Your task to perform on an android device: toggle airplane mode Image 0: 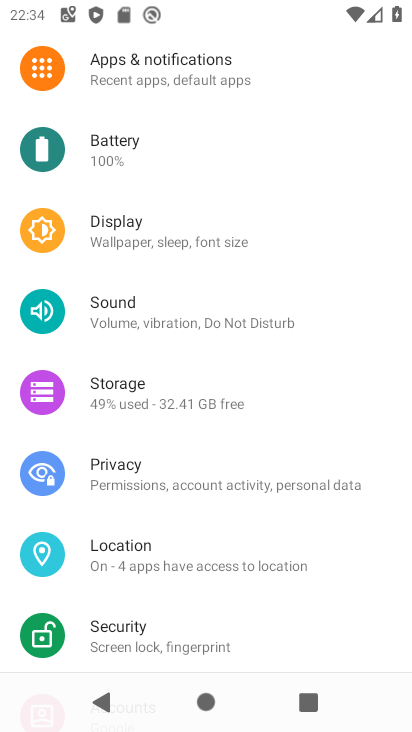
Step 0: drag from (239, 126) to (314, 540)
Your task to perform on an android device: toggle airplane mode Image 1: 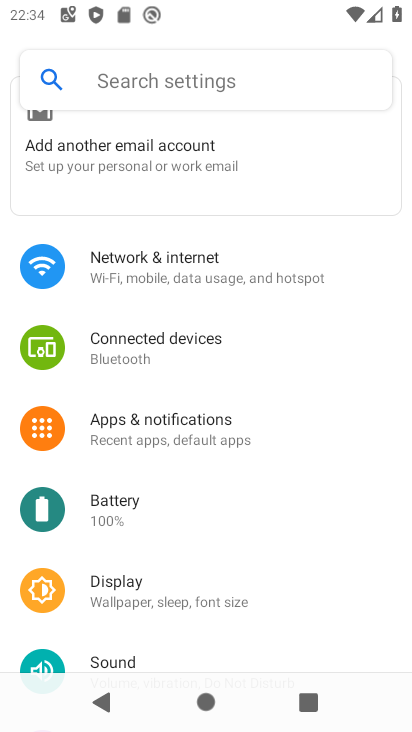
Step 1: click (126, 264)
Your task to perform on an android device: toggle airplane mode Image 2: 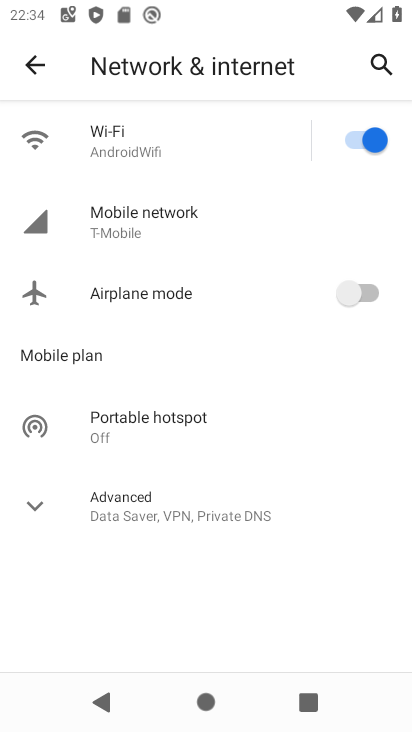
Step 2: click (352, 303)
Your task to perform on an android device: toggle airplane mode Image 3: 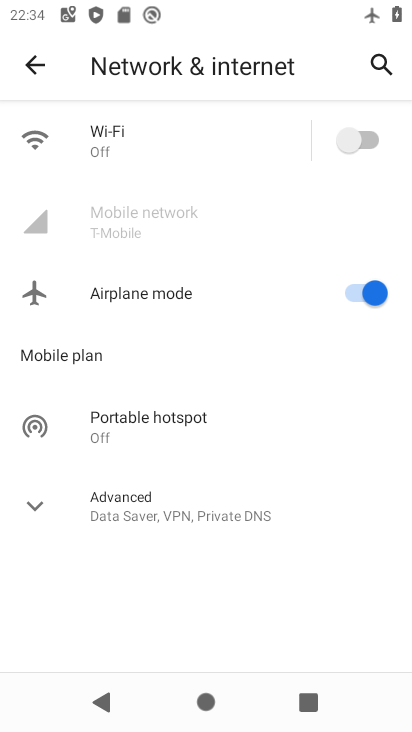
Step 3: task complete